Your task to perform on an android device: change timer sound Image 0: 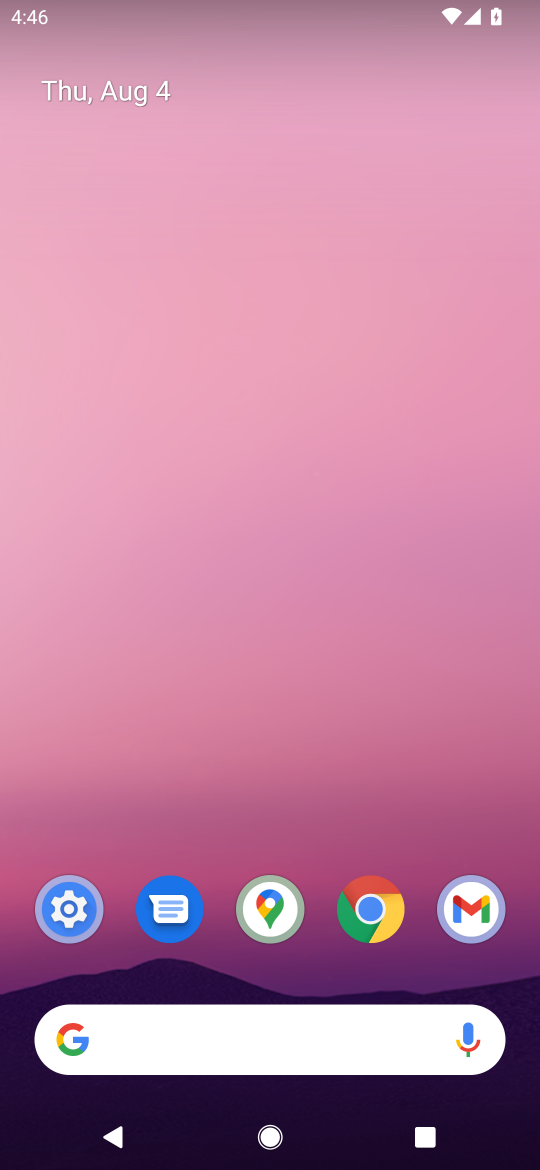
Step 0: press home button
Your task to perform on an android device: change timer sound Image 1: 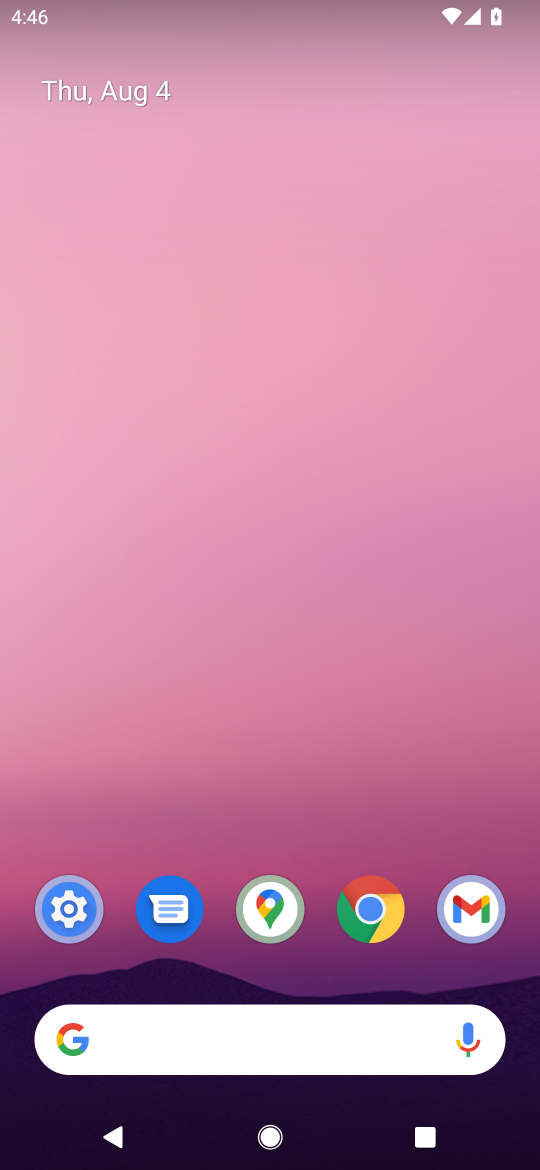
Step 1: drag from (376, 781) to (225, 27)
Your task to perform on an android device: change timer sound Image 2: 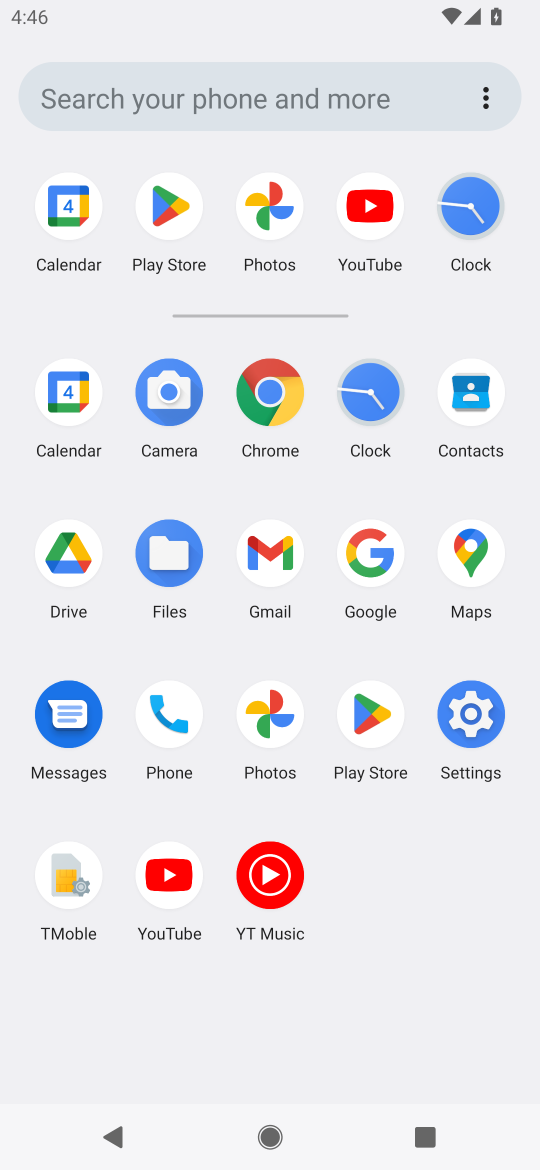
Step 2: click (364, 385)
Your task to perform on an android device: change timer sound Image 3: 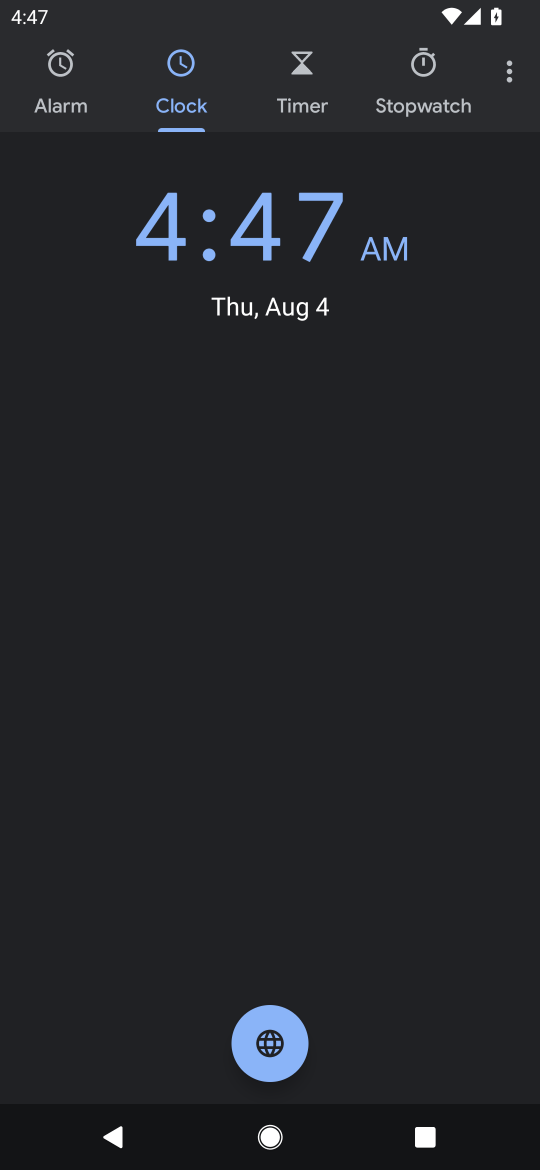
Step 3: click (501, 65)
Your task to perform on an android device: change timer sound Image 4: 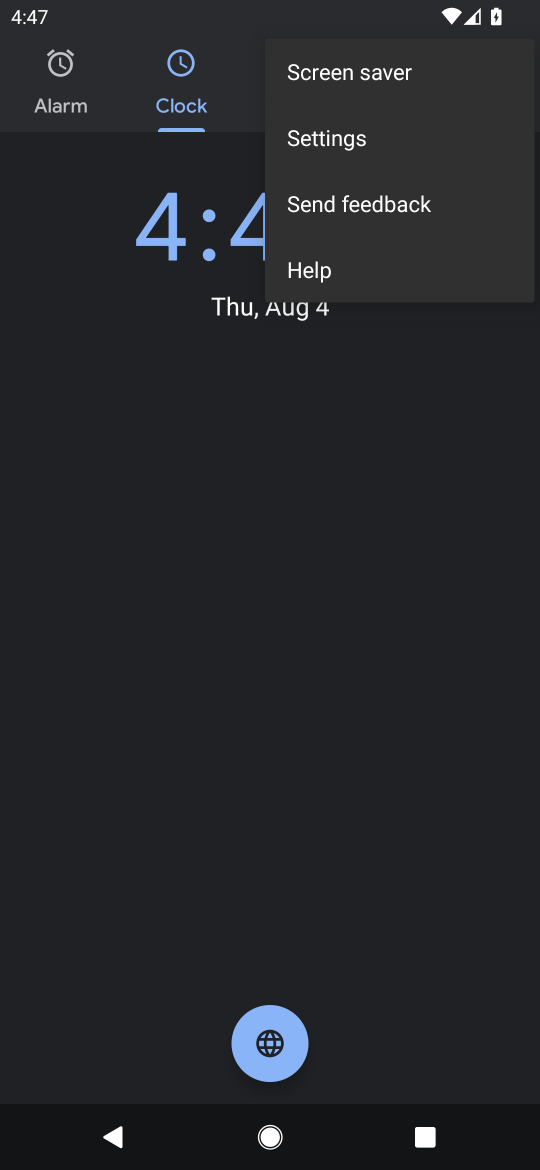
Step 4: click (303, 156)
Your task to perform on an android device: change timer sound Image 5: 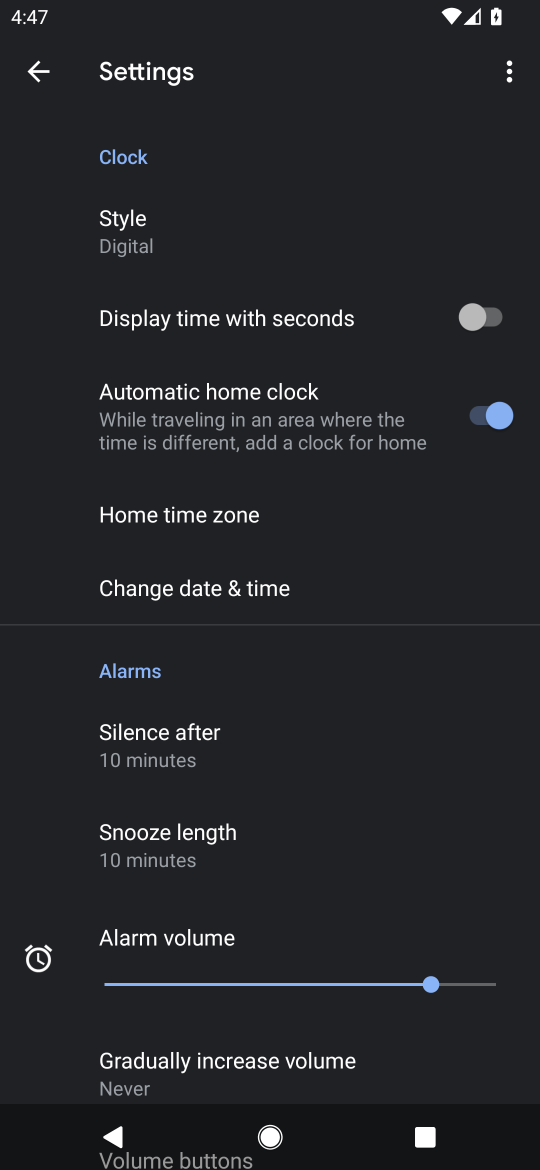
Step 5: drag from (498, 900) to (359, 335)
Your task to perform on an android device: change timer sound Image 6: 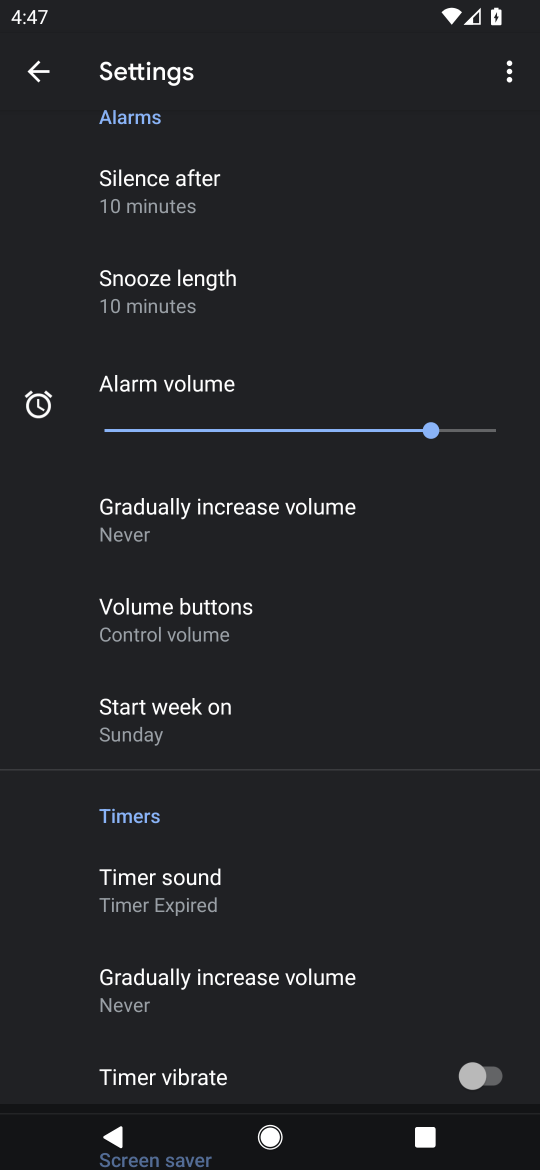
Step 6: click (191, 889)
Your task to perform on an android device: change timer sound Image 7: 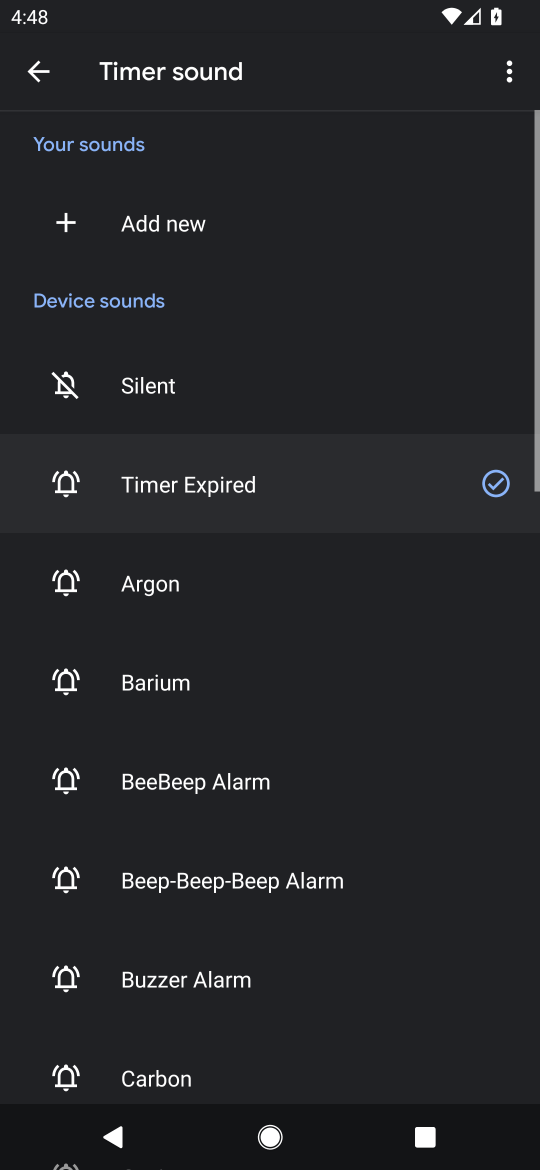
Step 7: click (163, 788)
Your task to perform on an android device: change timer sound Image 8: 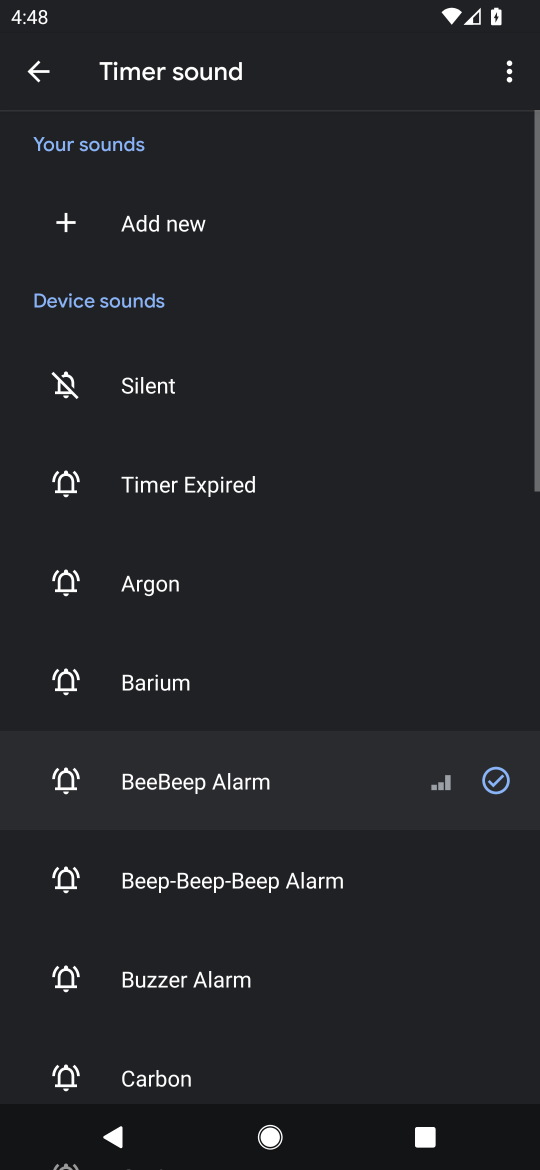
Step 8: task complete